Your task to perform on an android device: turn on priority inbox in the gmail app Image 0: 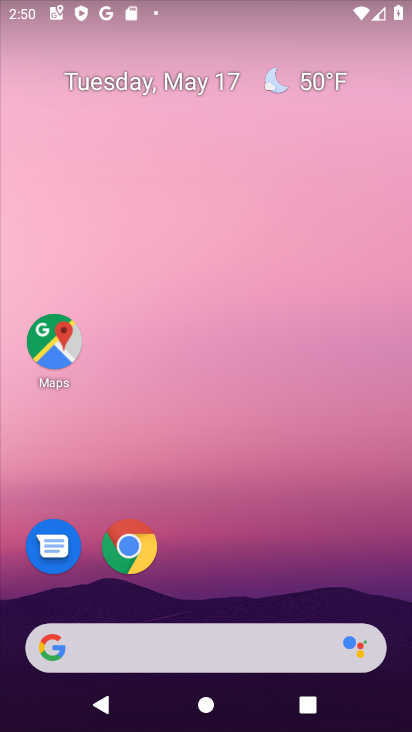
Step 0: drag from (237, 580) to (257, 21)
Your task to perform on an android device: turn on priority inbox in the gmail app Image 1: 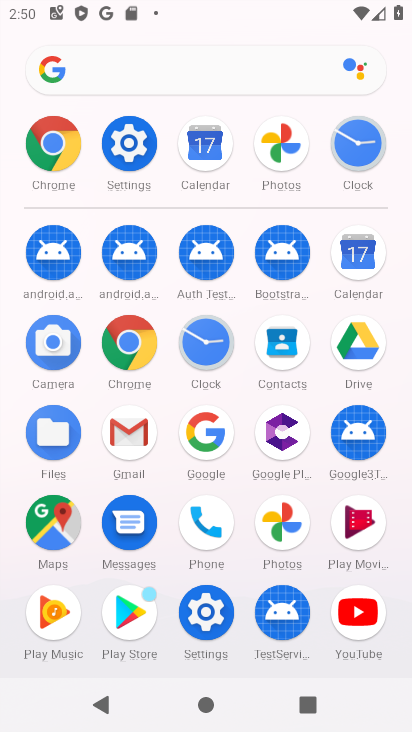
Step 1: click (132, 435)
Your task to perform on an android device: turn on priority inbox in the gmail app Image 2: 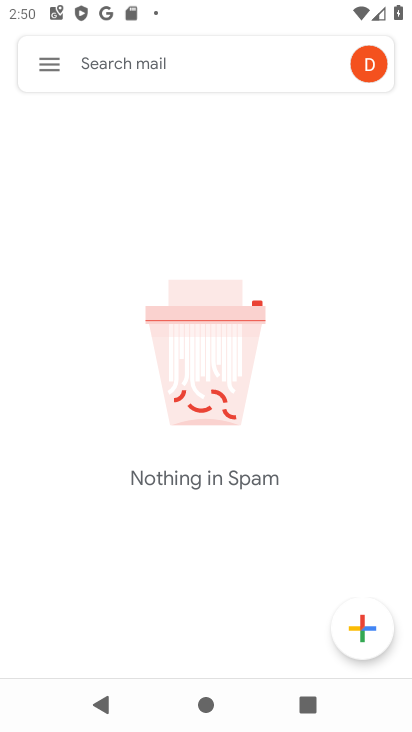
Step 2: click (42, 58)
Your task to perform on an android device: turn on priority inbox in the gmail app Image 3: 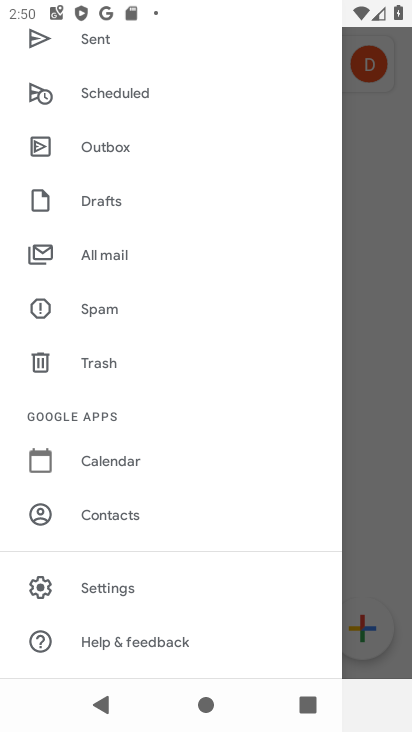
Step 3: click (120, 594)
Your task to perform on an android device: turn on priority inbox in the gmail app Image 4: 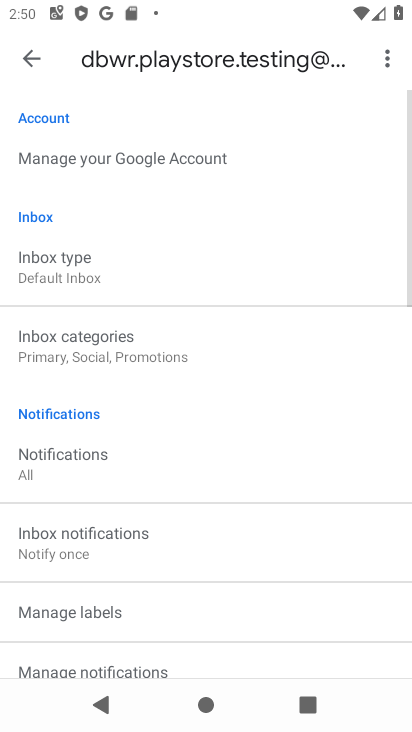
Step 4: click (105, 279)
Your task to perform on an android device: turn on priority inbox in the gmail app Image 5: 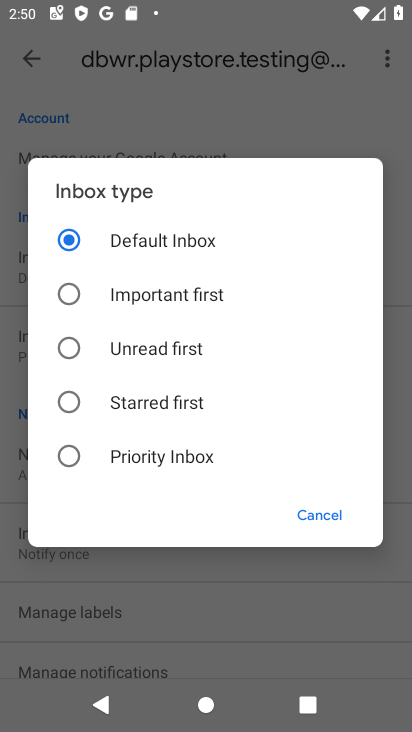
Step 5: click (115, 460)
Your task to perform on an android device: turn on priority inbox in the gmail app Image 6: 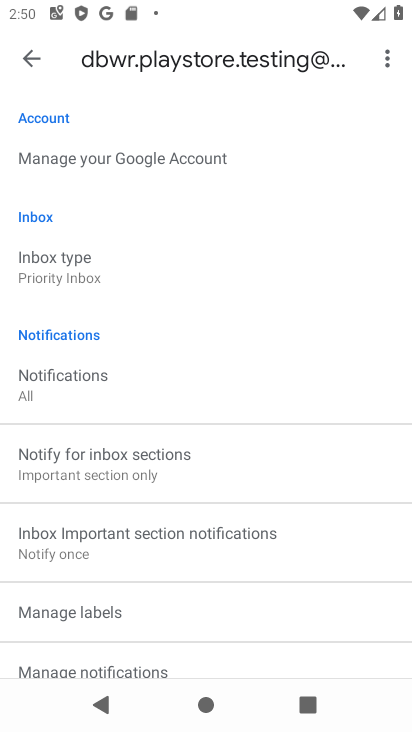
Step 6: task complete